Your task to perform on an android device: allow notifications from all sites in the chrome app Image 0: 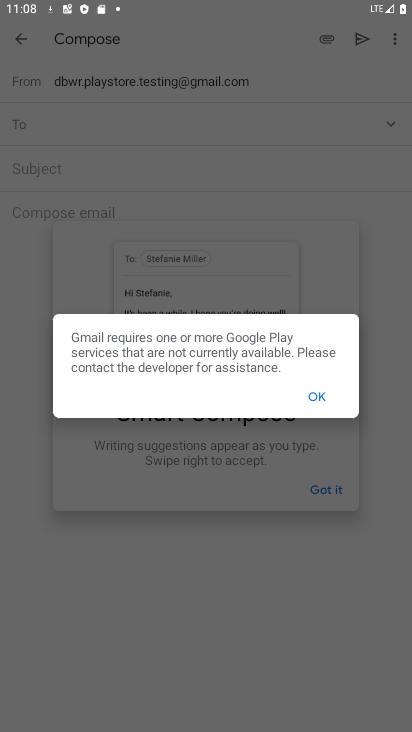
Step 0: press home button
Your task to perform on an android device: allow notifications from all sites in the chrome app Image 1: 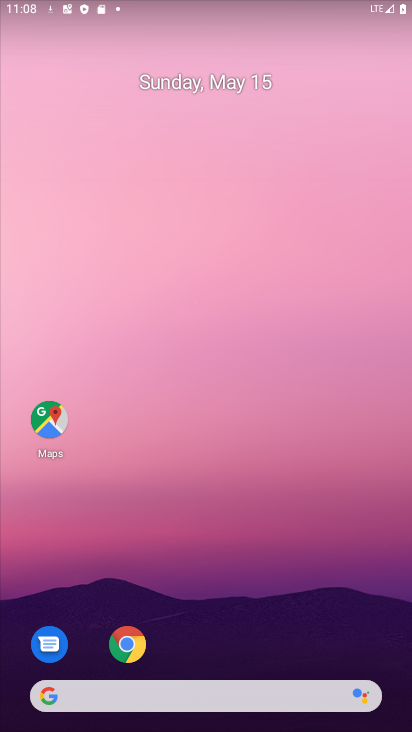
Step 1: drag from (249, 709) to (279, 295)
Your task to perform on an android device: allow notifications from all sites in the chrome app Image 2: 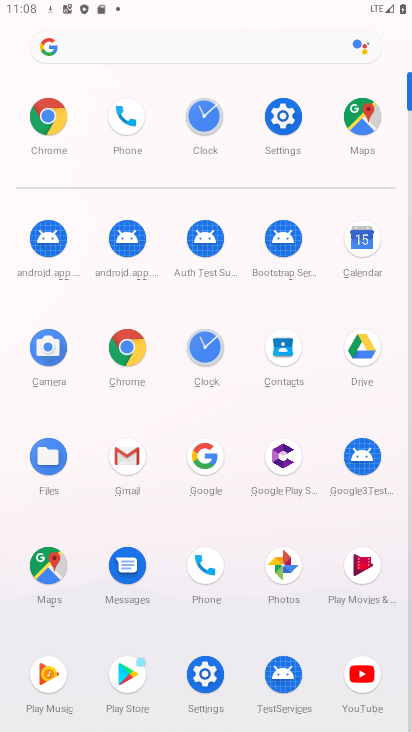
Step 2: click (110, 338)
Your task to perform on an android device: allow notifications from all sites in the chrome app Image 3: 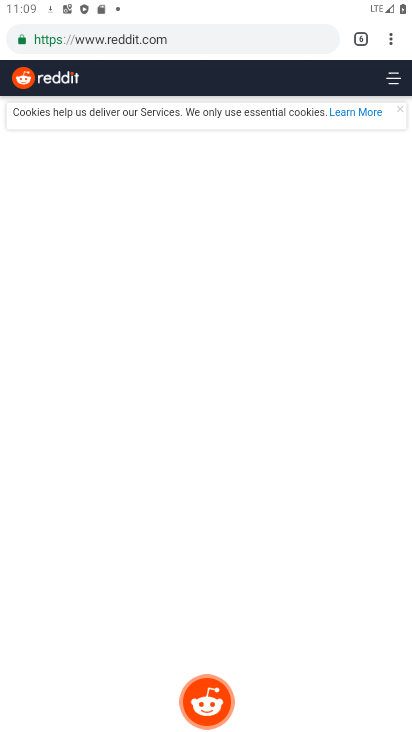
Step 3: click (394, 53)
Your task to perform on an android device: allow notifications from all sites in the chrome app Image 4: 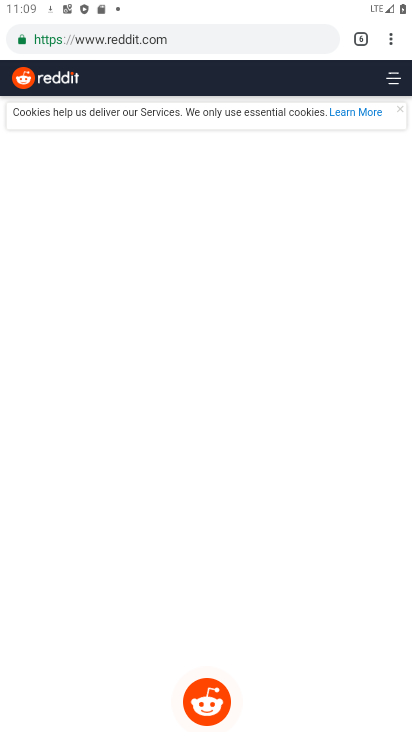
Step 4: click (382, 46)
Your task to perform on an android device: allow notifications from all sites in the chrome app Image 5: 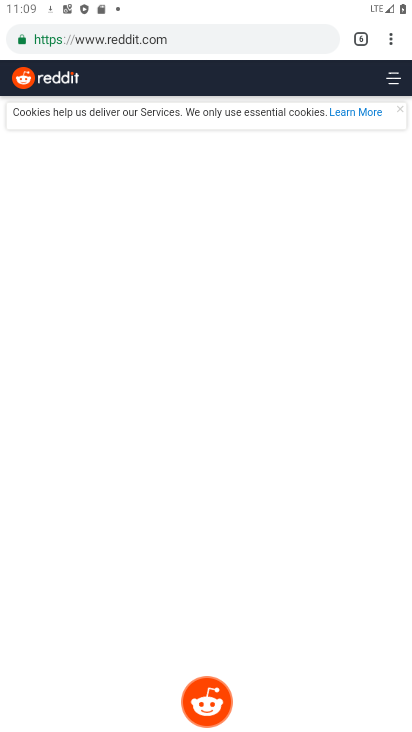
Step 5: click (386, 55)
Your task to perform on an android device: allow notifications from all sites in the chrome app Image 6: 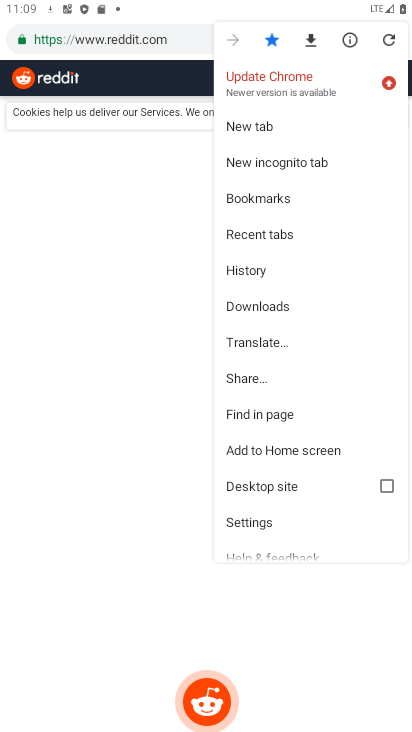
Step 6: click (273, 526)
Your task to perform on an android device: allow notifications from all sites in the chrome app Image 7: 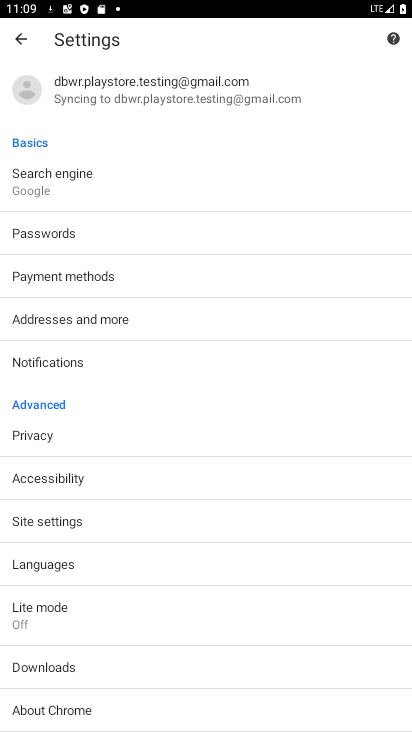
Step 7: click (80, 516)
Your task to perform on an android device: allow notifications from all sites in the chrome app Image 8: 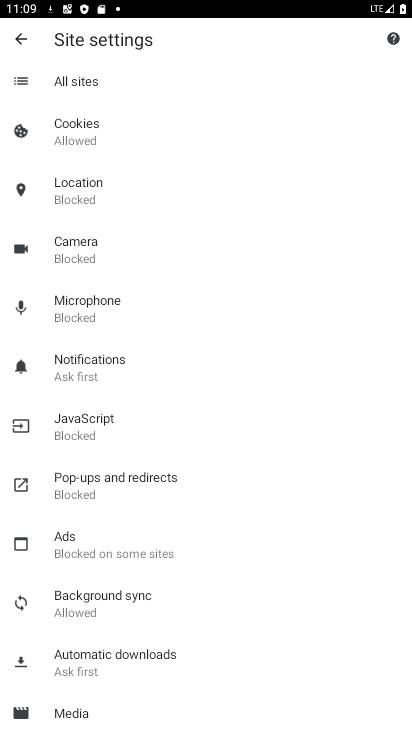
Step 8: click (95, 368)
Your task to perform on an android device: allow notifications from all sites in the chrome app Image 9: 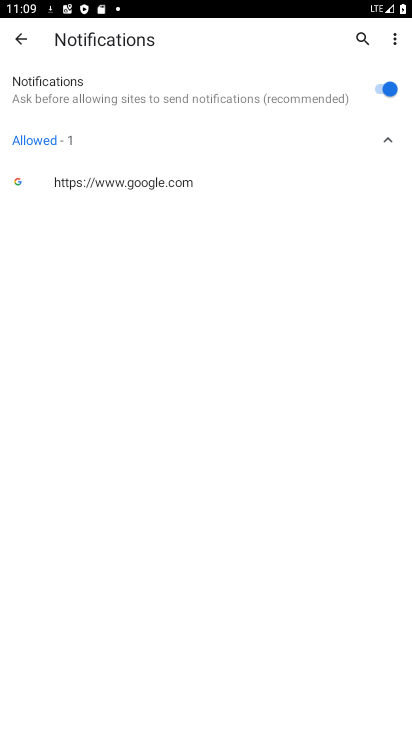
Step 9: click (369, 79)
Your task to perform on an android device: allow notifications from all sites in the chrome app Image 10: 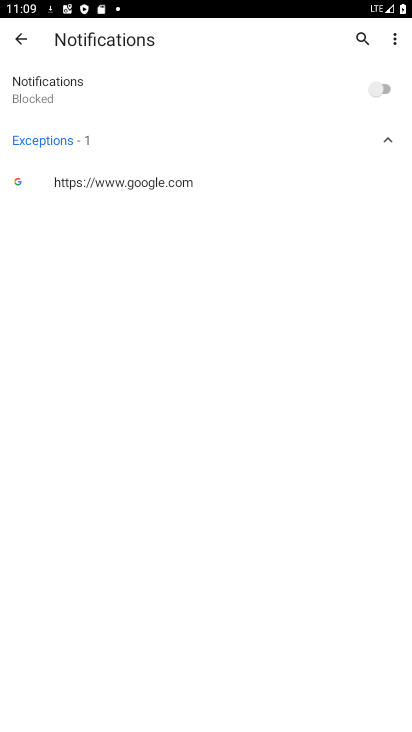
Step 10: click (377, 78)
Your task to perform on an android device: allow notifications from all sites in the chrome app Image 11: 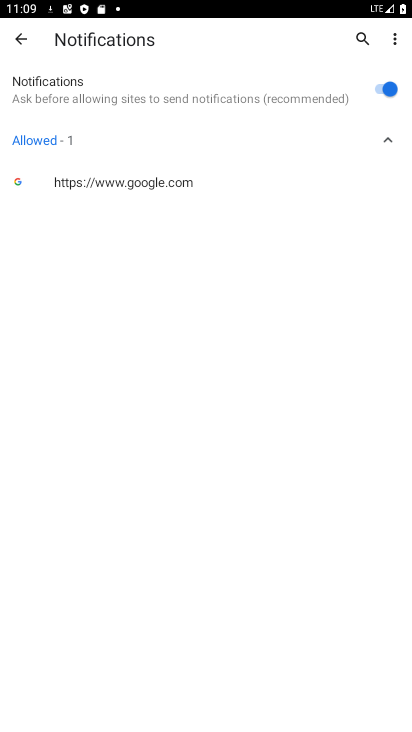
Step 11: task complete